Your task to perform on an android device: add a contact Image 0: 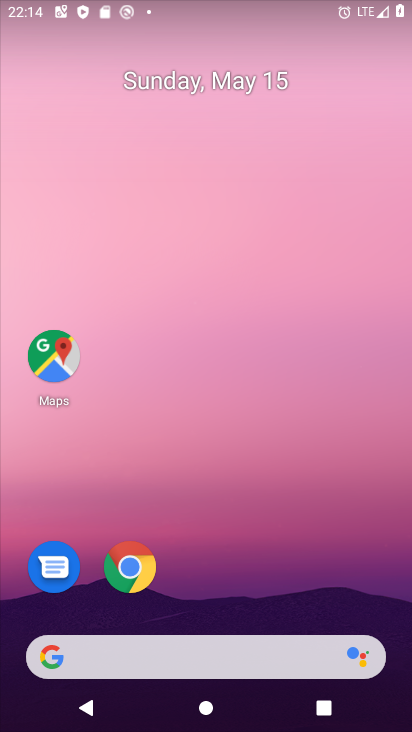
Step 0: drag from (268, 638) to (255, 50)
Your task to perform on an android device: add a contact Image 1: 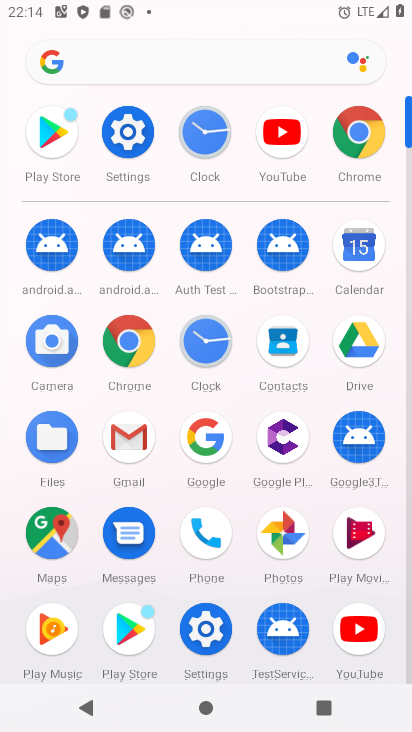
Step 1: click (277, 357)
Your task to perform on an android device: add a contact Image 2: 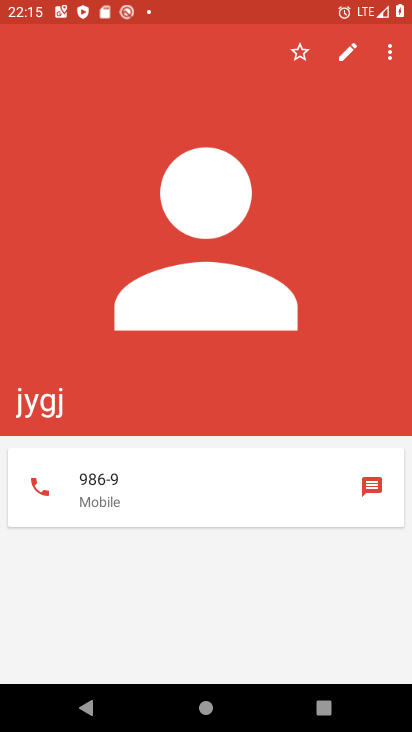
Step 2: click (100, 713)
Your task to perform on an android device: add a contact Image 3: 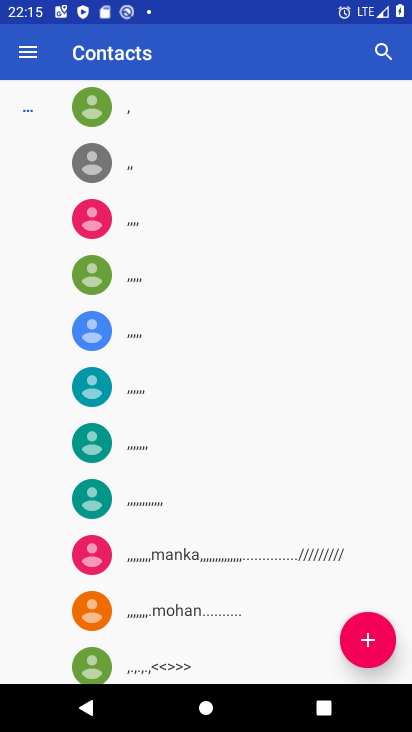
Step 3: press home button
Your task to perform on an android device: add a contact Image 4: 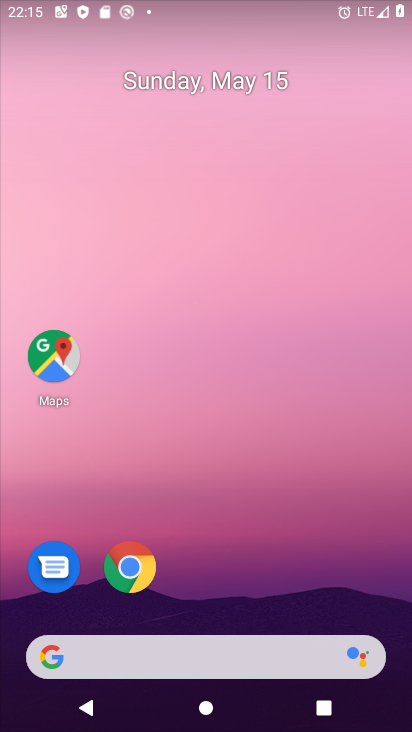
Step 4: click (153, 9)
Your task to perform on an android device: add a contact Image 5: 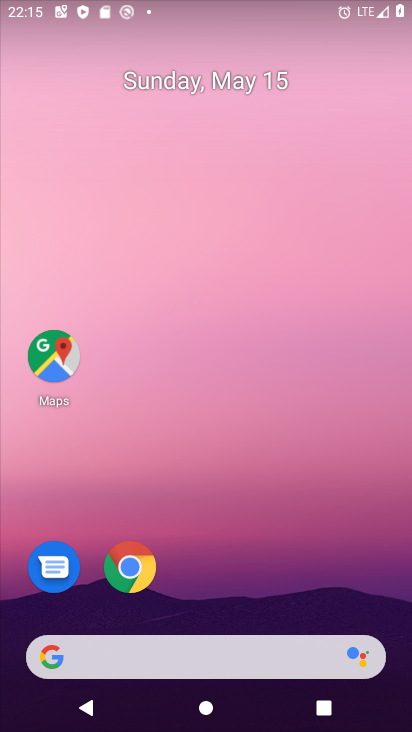
Step 5: drag from (252, 704) to (254, 23)
Your task to perform on an android device: add a contact Image 6: 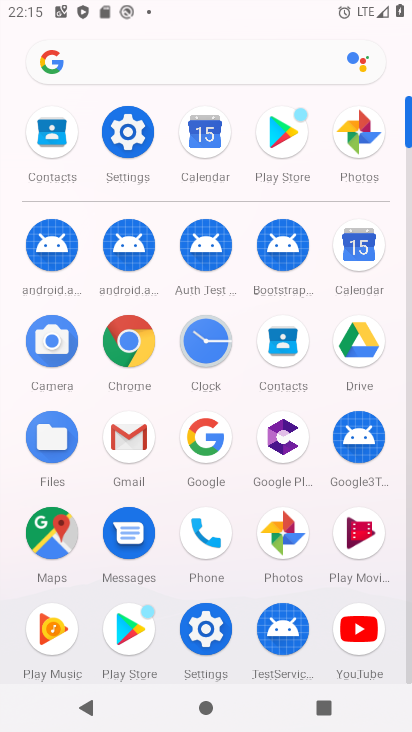
Step 6: click (290, 342)
Your task to perform on an android device: add a contact Image 7: 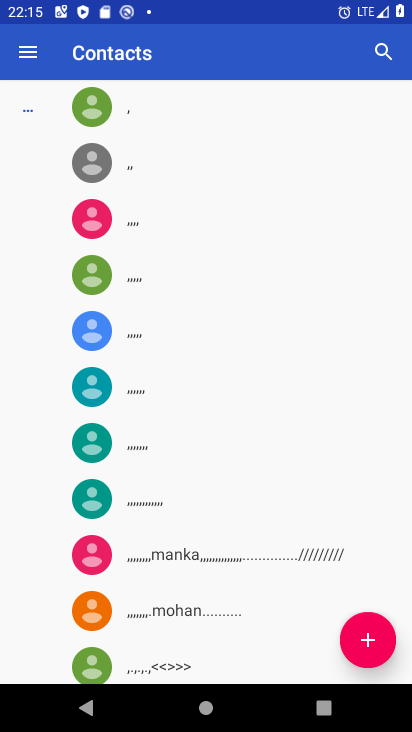
Step 7: click (359, 640)
Your task to perform on an android device: add a contact Image 8: 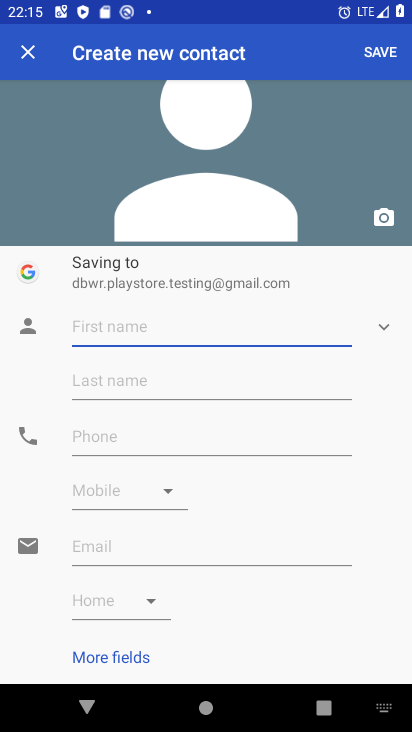
Step 8: type "jhgj"
Your task to perform on an android device: add a contact Image 9: 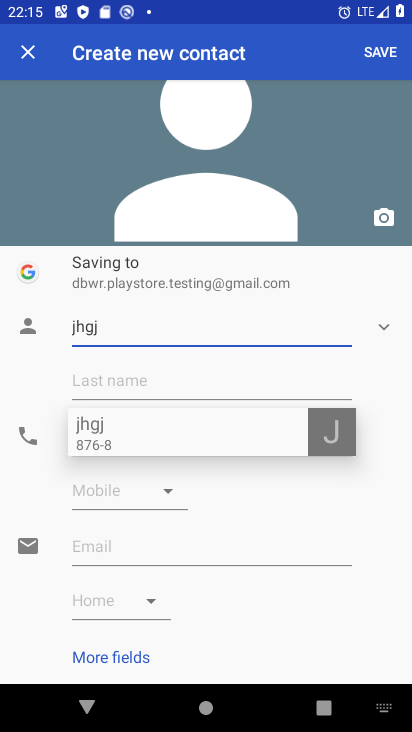
Step 9: click (242, 301)
Your task to perform on an android device: add a contact Image 10: 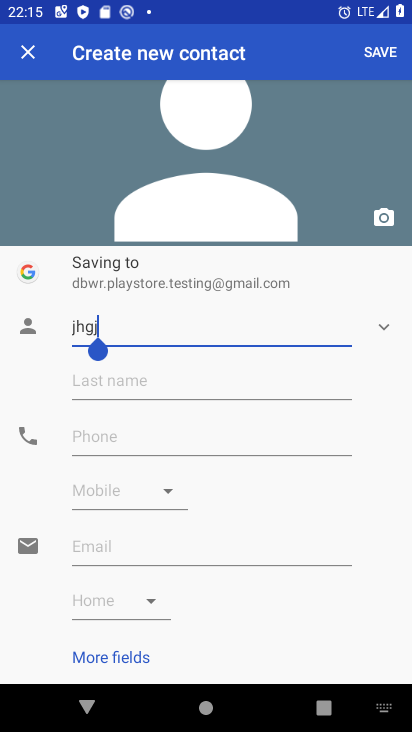
Step 10: type "jmnj"
Your task to perform on an android device: add a contact Image 11: 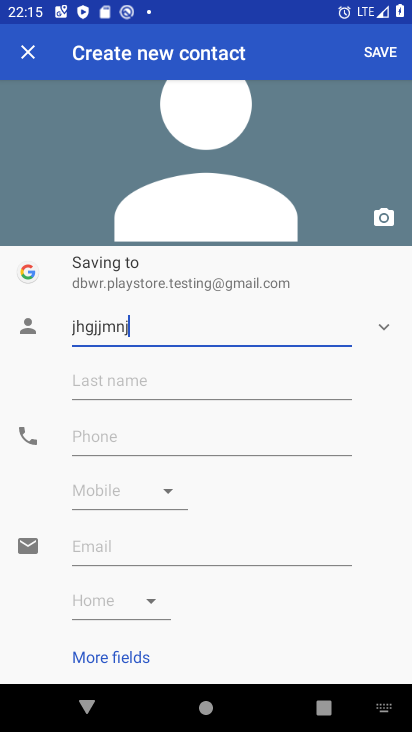
Step 11: click (164, 440)
Your task to perform on an android device: add a contact Image 12: 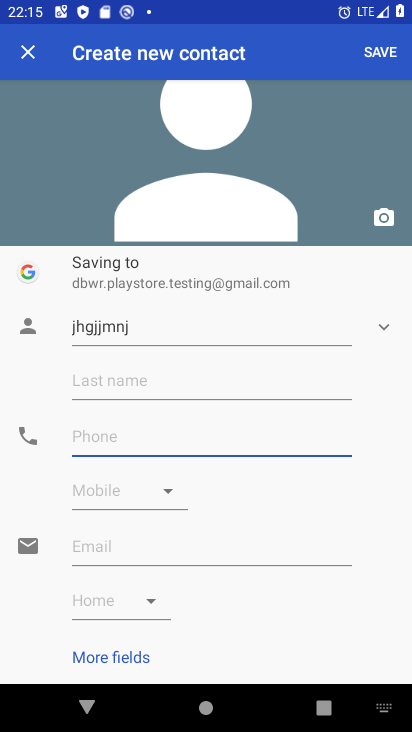
Step 12: type "88"
Your task to perform on an android device: add a contact Image 13: 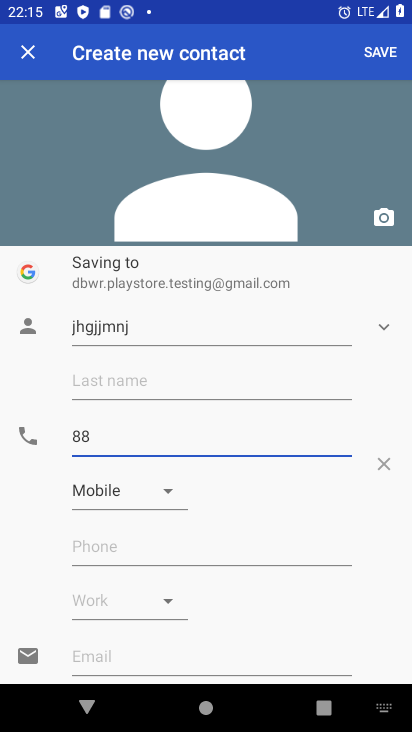
Step 13: click (366, 42)
Your task to perform on an android device: add a contact Image 14: 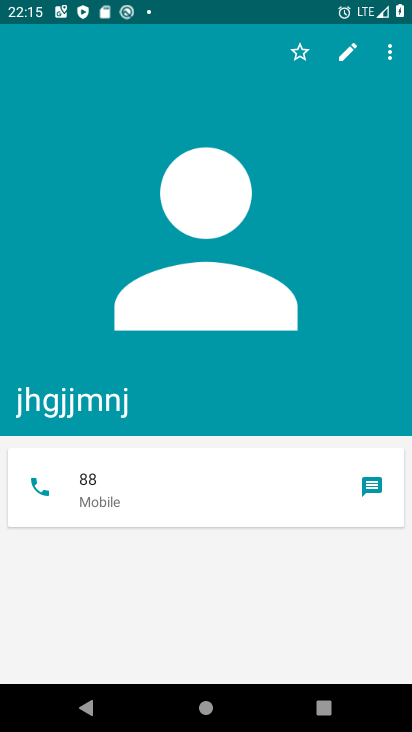
Step 14: task complete